Your task to perform on an android device: Open network settings Image 0: 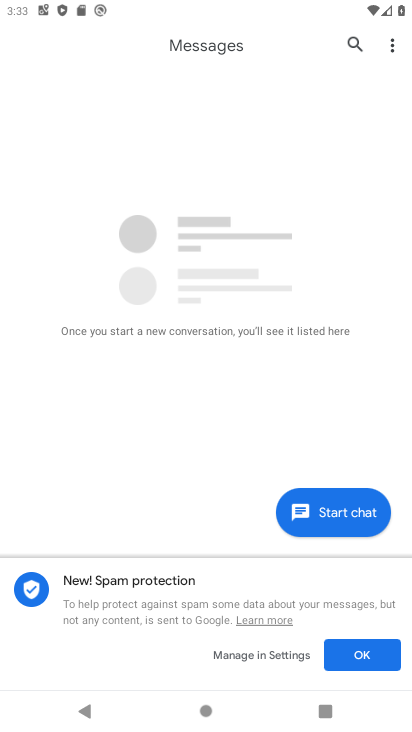
Step 0: drag from (259, 688) to (189, 331)
Your task to perform on an android device: Open network settings Image 1: 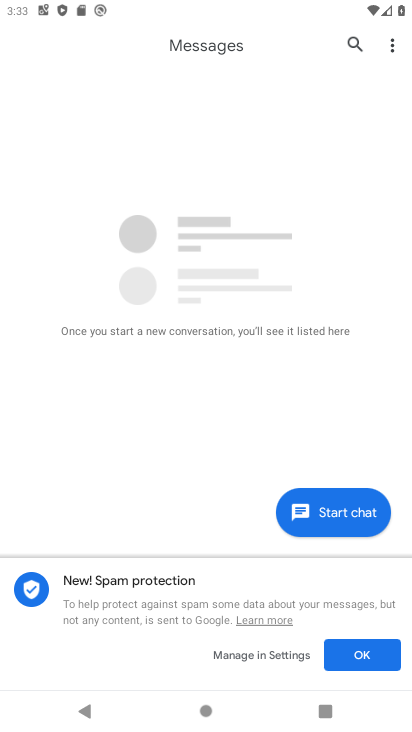
Step 1: press back button
Your task to perform on an android device: Open network settings Image 2: 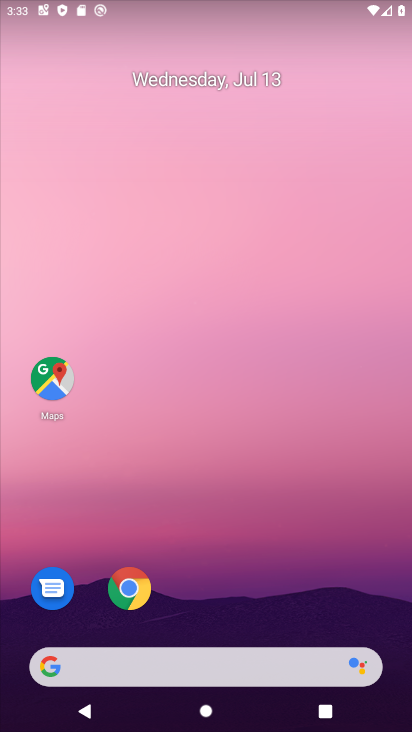
Step 2: drag from (240, 658) to (216, 150)
Your task to perform on an android device: Open network settings Image 3: 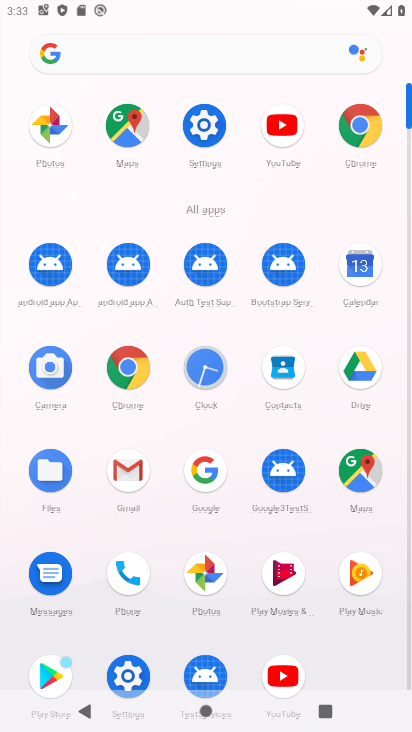
Step 3: click (129, 667)
Your task to perform on an android device: Open network settings Image 4: 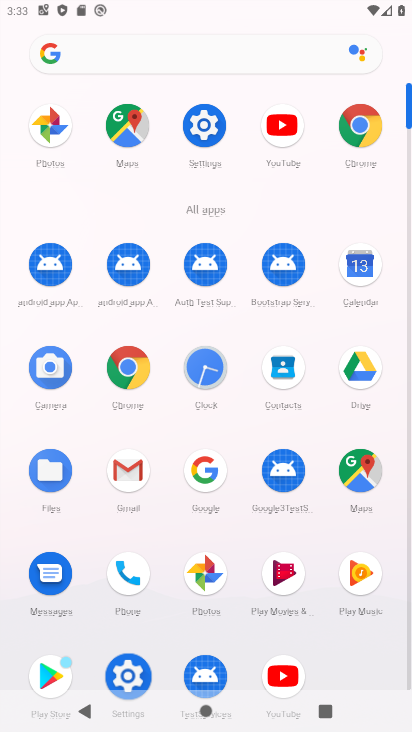
Step 4: click (130, 667)
Your task to perform on an android device: Open network settings Image 5: 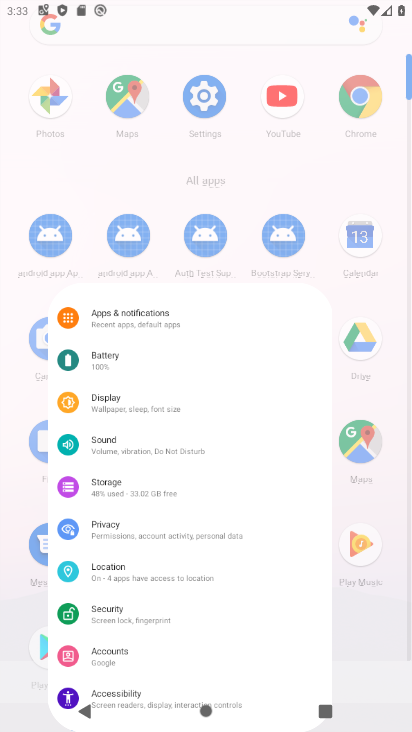
Step 5: click (130, 667)
Your task to perform on an android device: Open network settings Image 6: 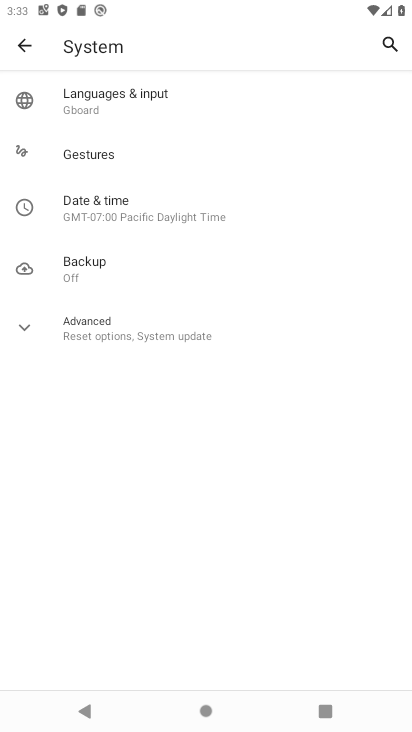
Step 6: click (17, 46)
Your task to perform on an android device: Open network settings Image 7: 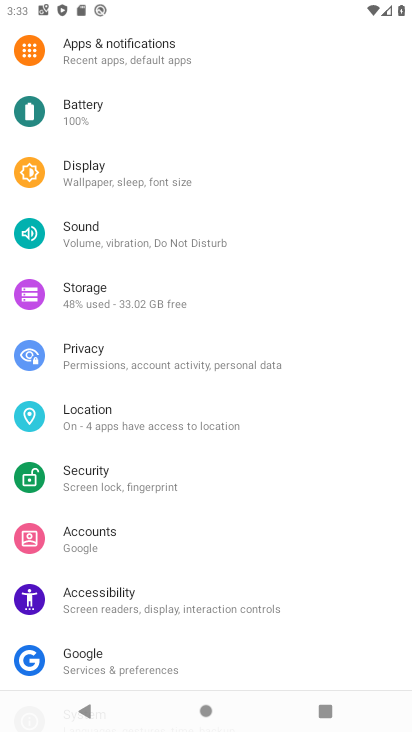
Step 7: drag from (119, 75) to (219, 608)
Your task to perform on an android device: Open network settings Image 8: 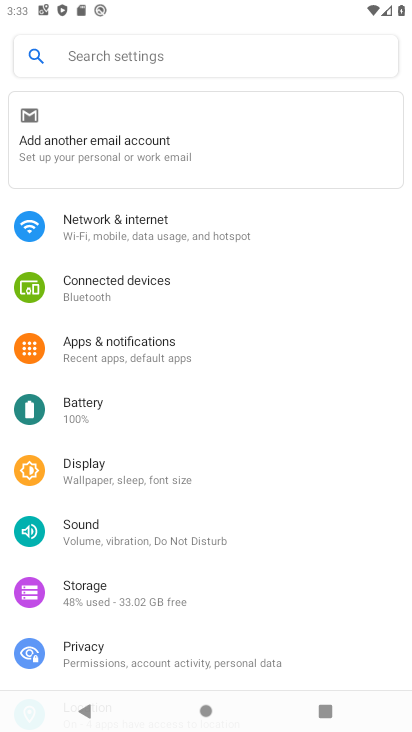
Step 8: click (113, 231)
Your task to perform on an android device: Open network settings Image 9: 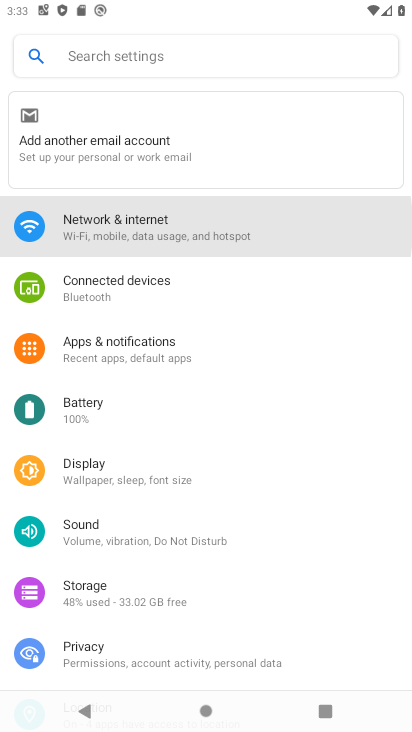
Step 9: click (118, 227)
Your task to perform on an android device: Open network settings Image 10: 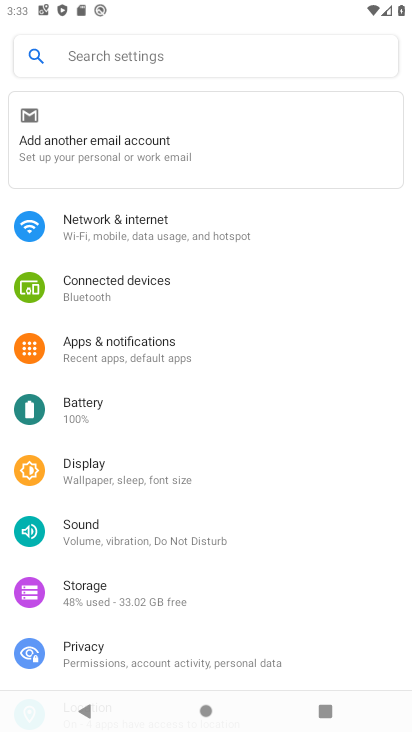
Step 10: click (120, 229)
Your task to perform on an android device: Open network settings Image 11: 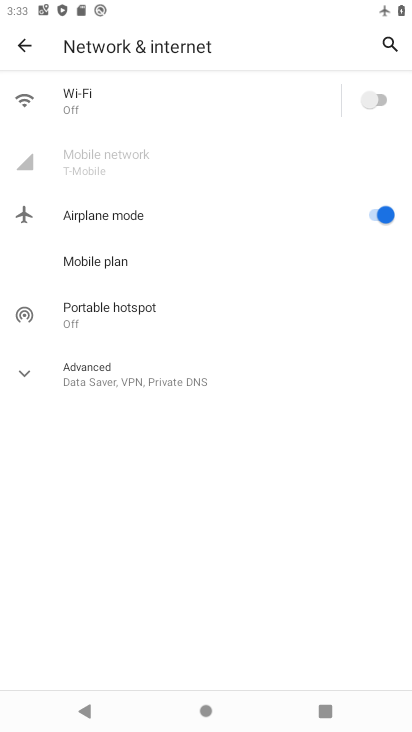
Step 11: click (368, 99)
Your task to perform on an android device: Open network settings Image 12: 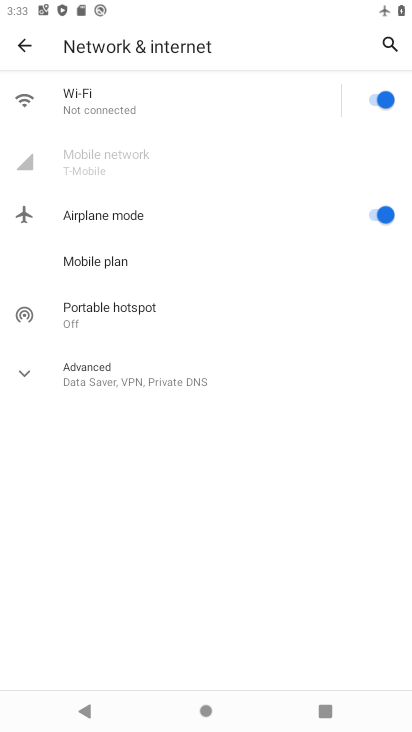
Step 12: click (387, 209)
Your task to perform on an android device: Open network settings Image 13: 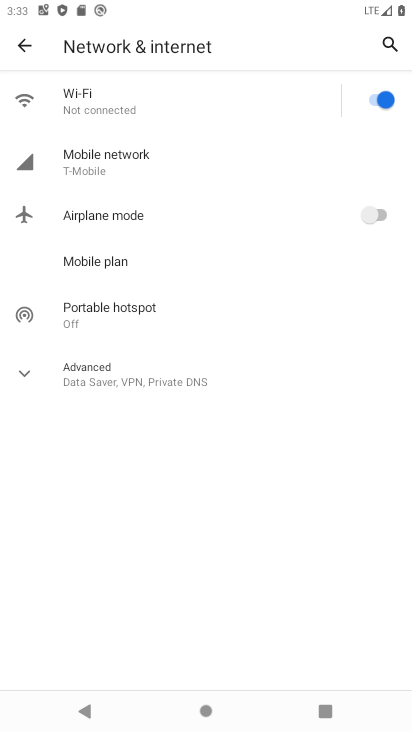
Step 13: click (387, 213)
Your task to perform on an android device: Open network settings Image 14: 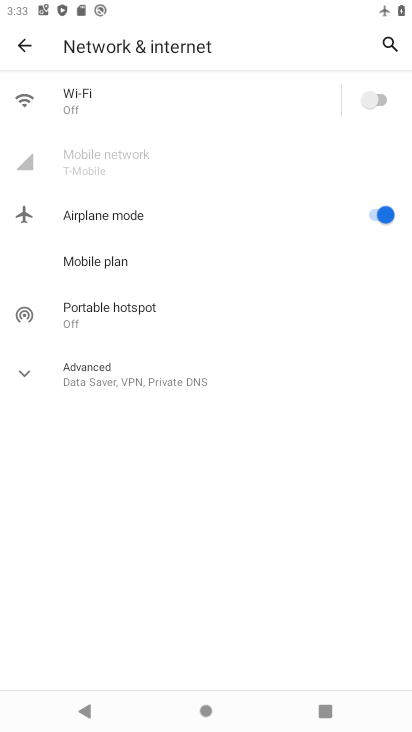
Step 14: task complete